Your task to perform on an android device: Open calendar and show me the third week of next month Image 0: 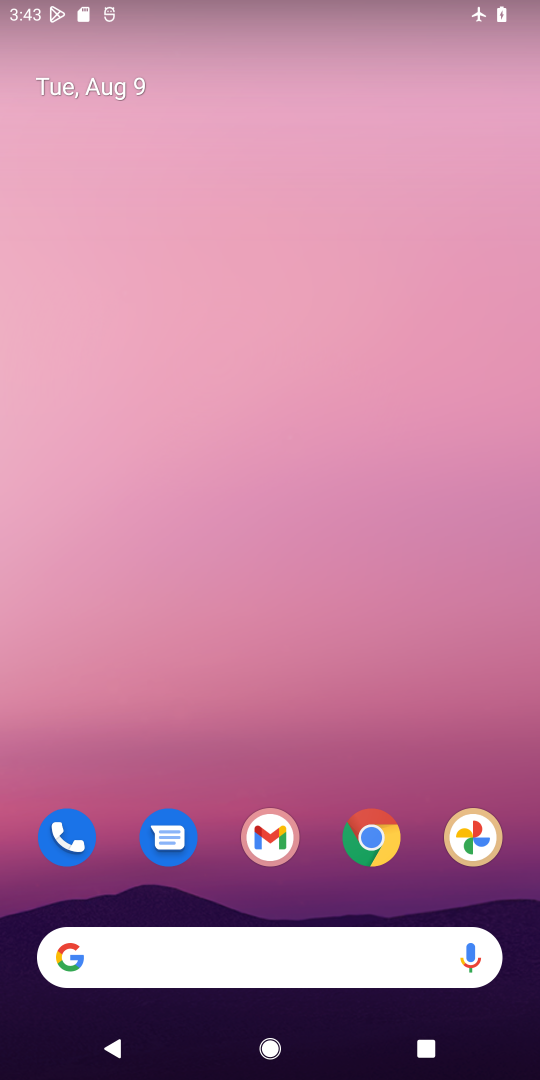
Step 0: drag from (273, 526) to (293, 320)
Your task to perform on an android device: Open calendar and show me the third week of next month Image 1: 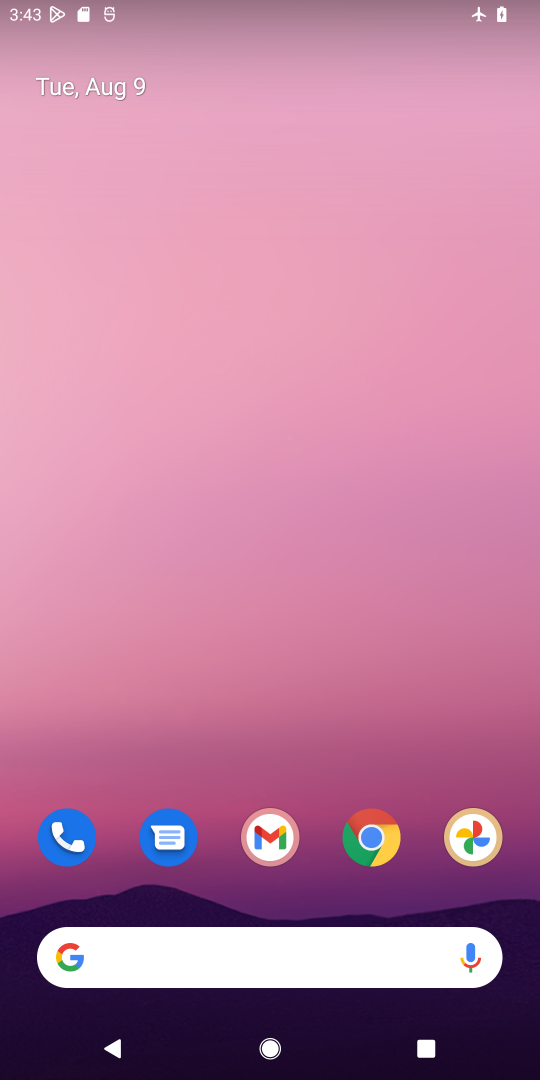
Step 1: drag from (257, 831) to (380, 168)
Your task to perform on an android device: Open calendar and show me the third week of next month Image 2: 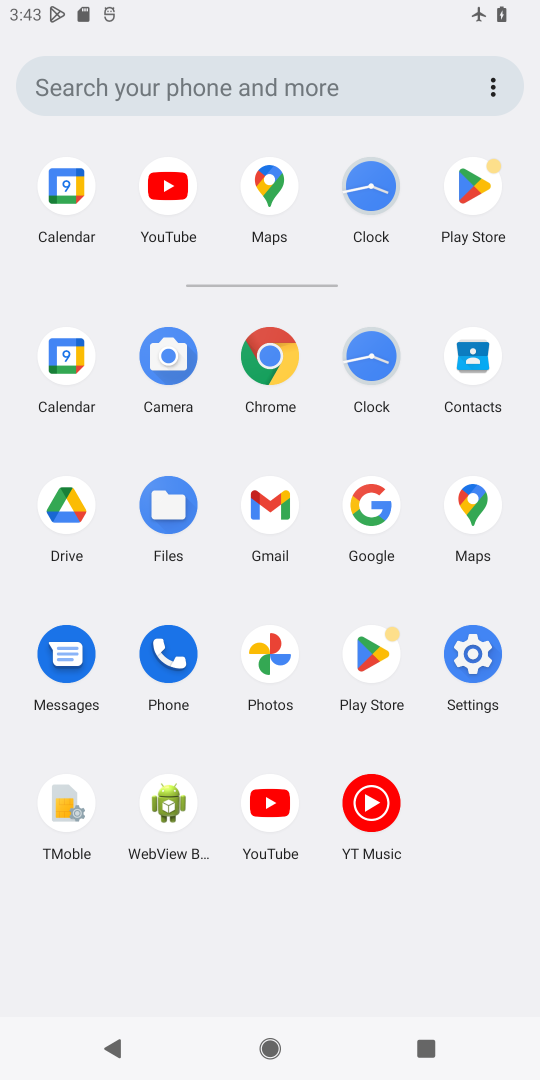
Step 2: click (84, 347)
Your task to perform on an android device: Open calendar and show me the third week of next month Image 3: 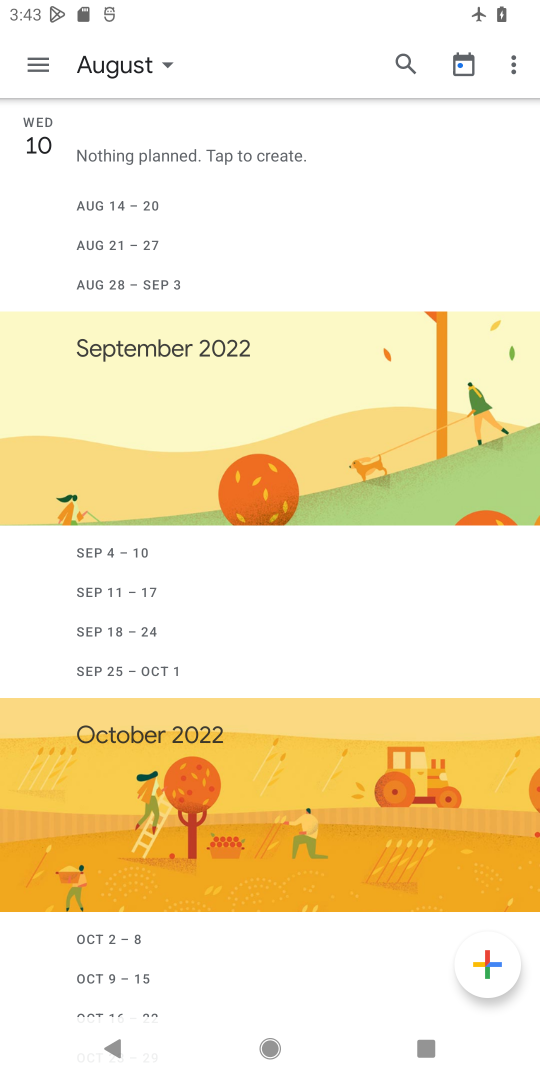
Step 3: click (52, 59)
Your task to perform on an android device: Open calendar and show me the third week of next month Image 4: 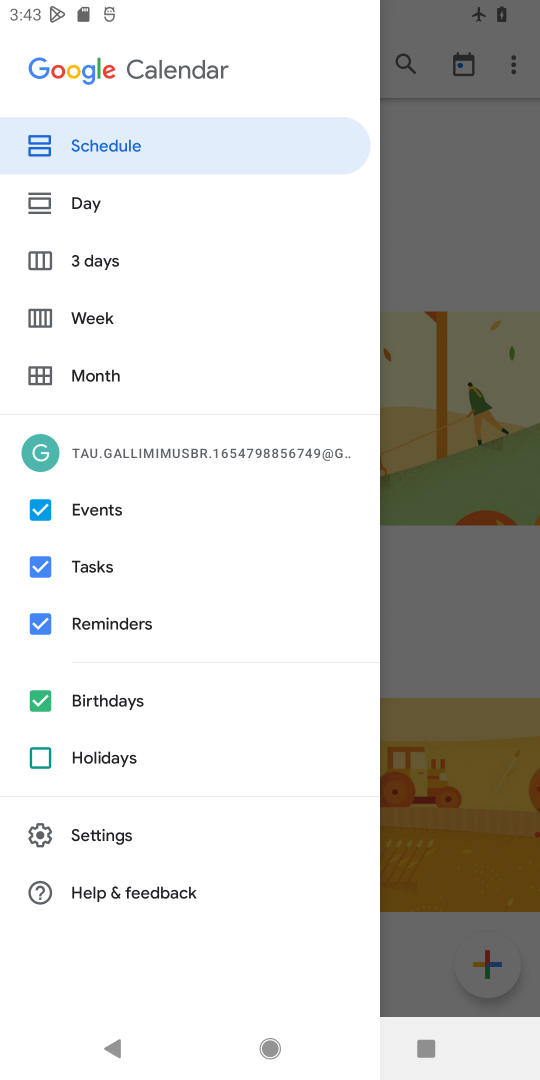
Step 4: click (146, 289)
Your task to perform on an android device: Open calendar and show me the third week of next month Image 5: 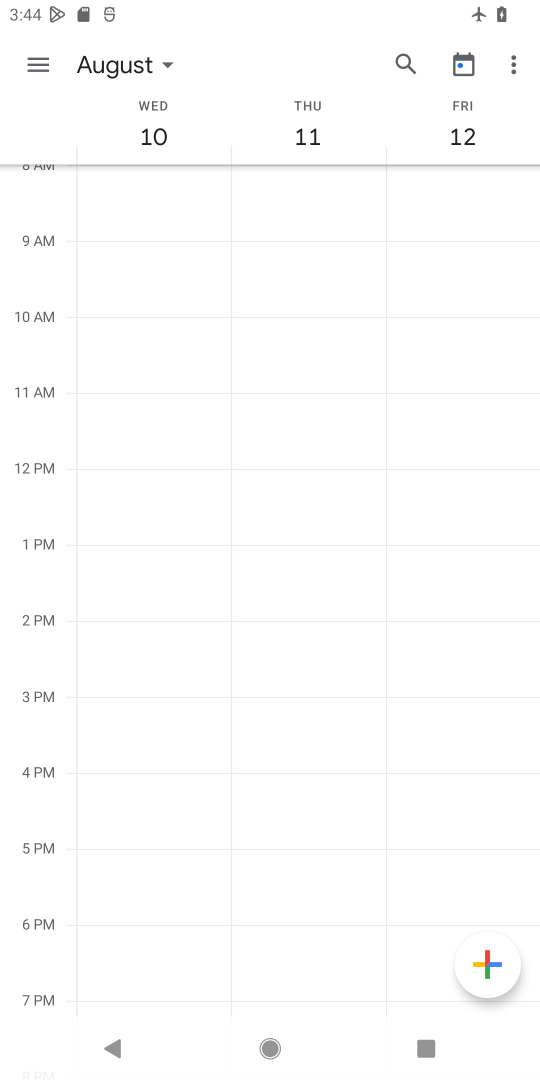
Step 5: click (28, 54)
Your task to perform on an android device: Open calendar and show me the third week of next month Image 6: 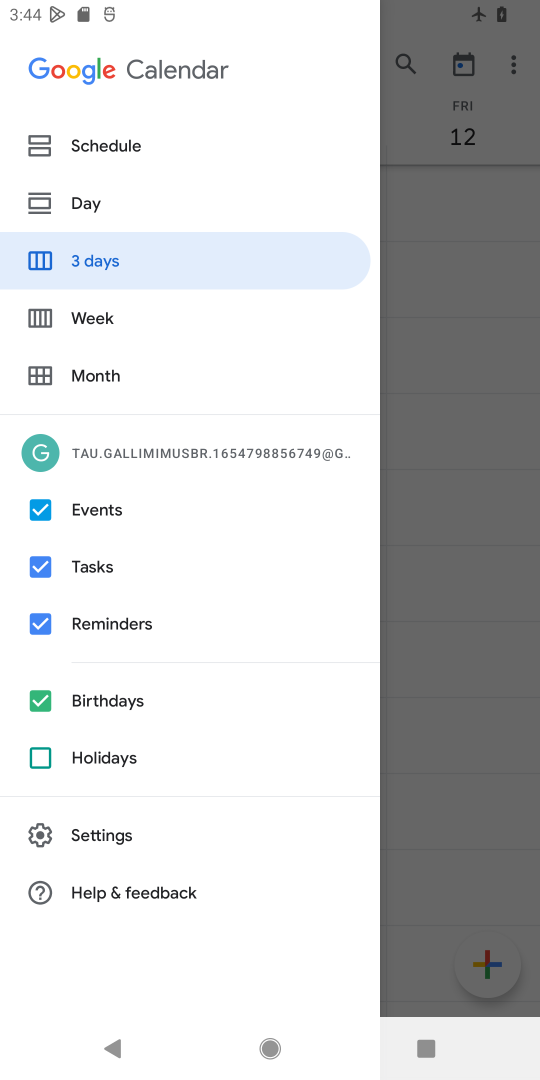
Step 6: click (89, 303)
Your task to perform on an android device: Open calendar and show me the third week of next month Image 7: 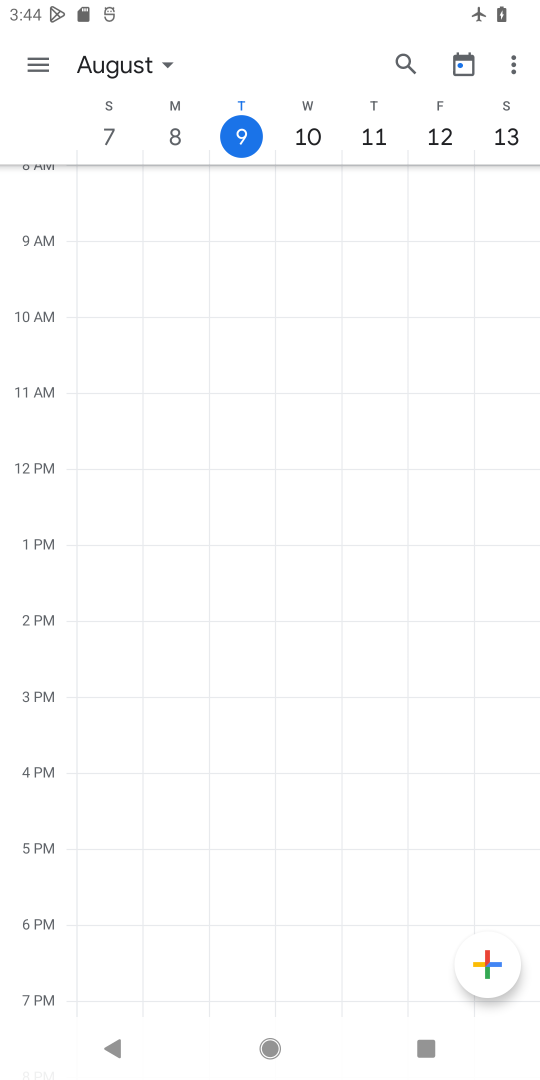
Step 7: drag from (481, 110) to (4, 141)
Your task to perform on an android device: Open calendar and show me the third week of next month Image 8: 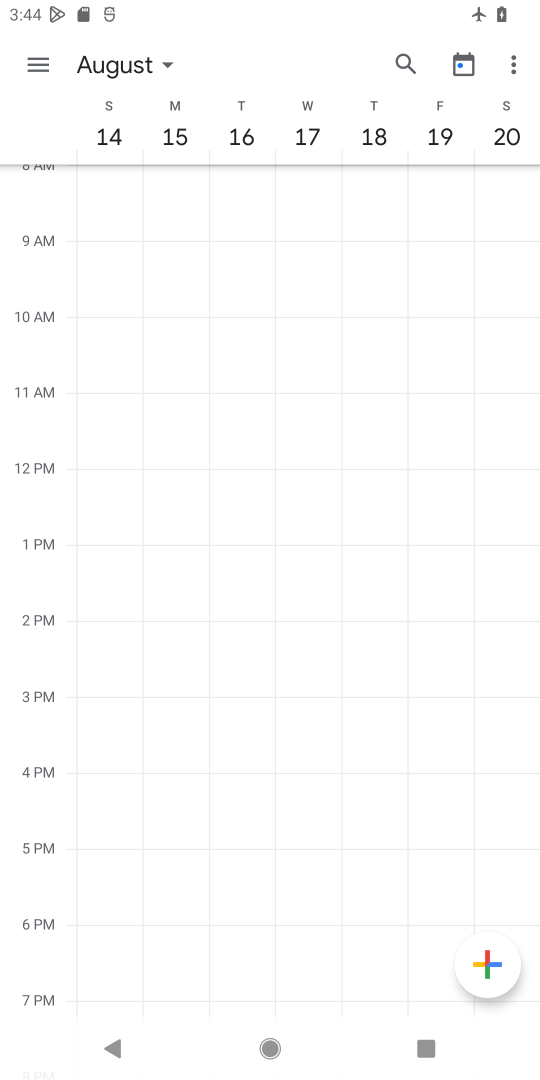
Step 8: drag from (362, 134) to (59, 132)
Your task to perform on an android device: Open calendar and show me the third week of next month Image 9: 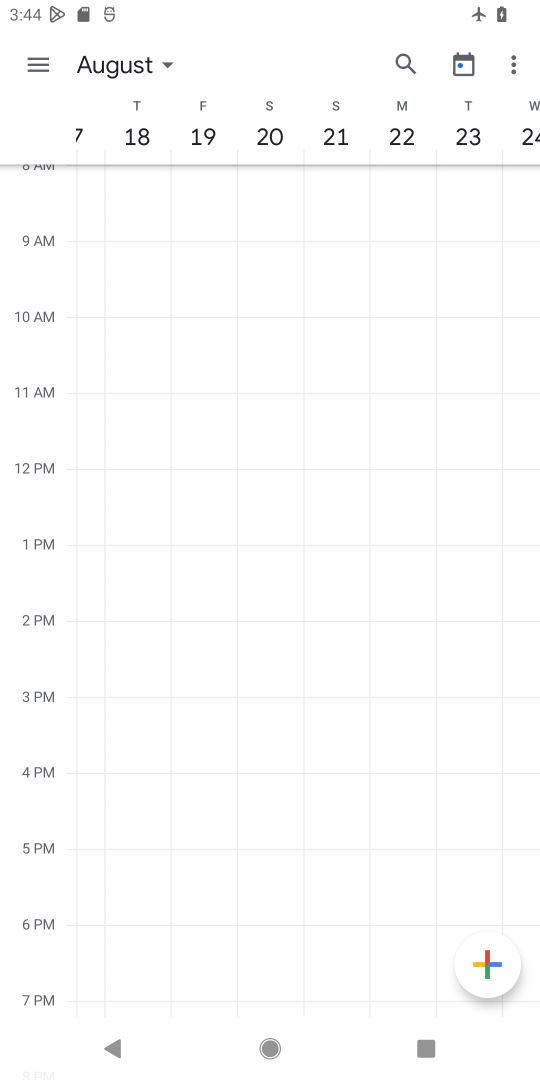
Step 9: click (46, 107)
Your task to perform on an android device: Open calendar and show me the third week of next month Image 10: 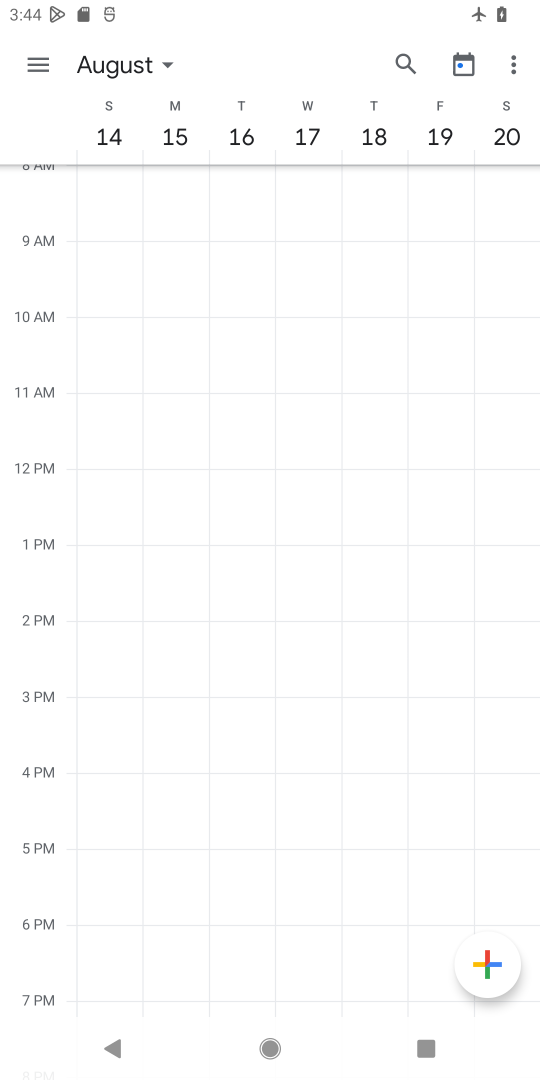
Step 10: task complete